Your task to perform on an android device: When is my next meeting? Image 0: 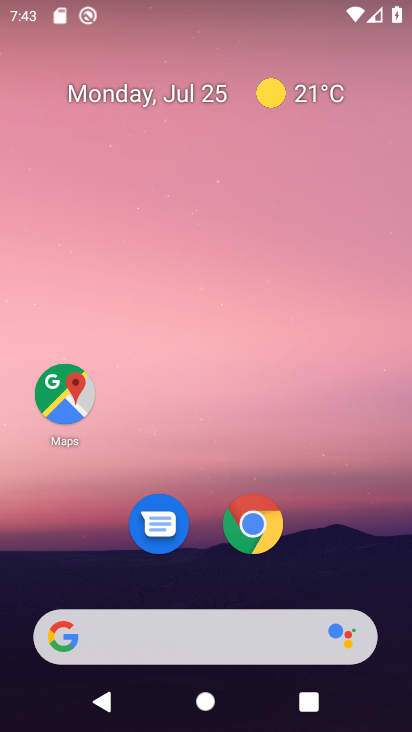
Step 0: press home button
Your task to perform on an android device: When is my next meeting? Image 1: 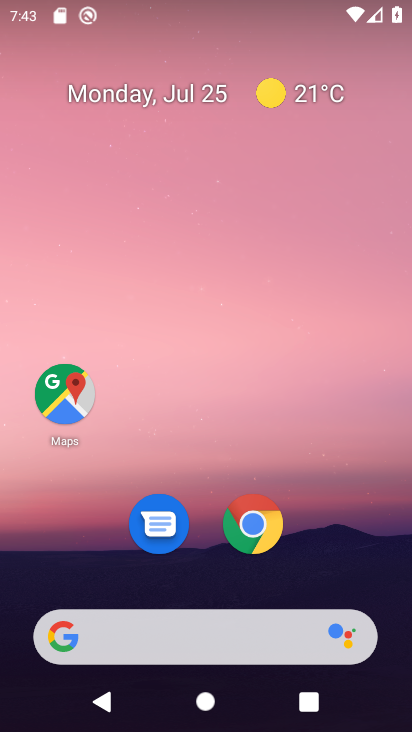
Step 1: drag from (205, 642) to (335, 185)
Your task to perform on an android device: When is my next meeting? Image 2: 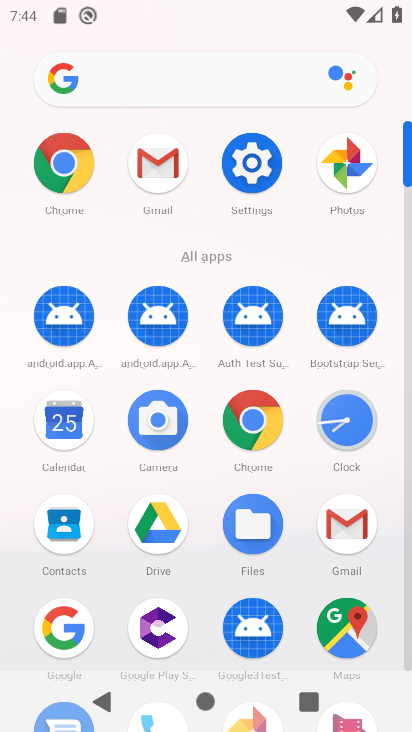
Step 2: click (56, 435)
Your task to perform on an android device: When is my next meeting? Image 3: 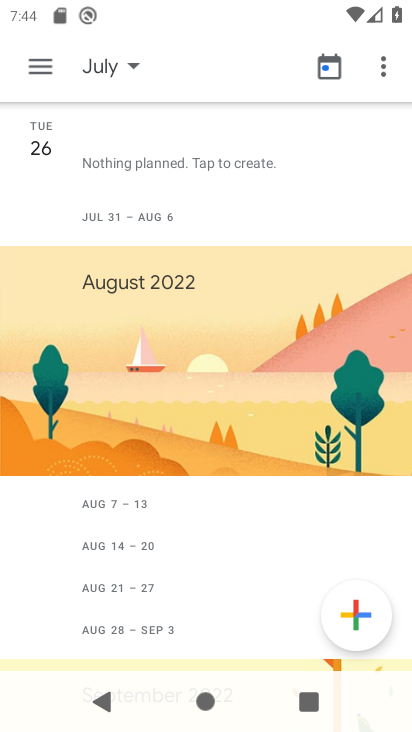
Step 3: click (98, 69)
Your task to perform on an android device: When is my next meeting? Image 4: 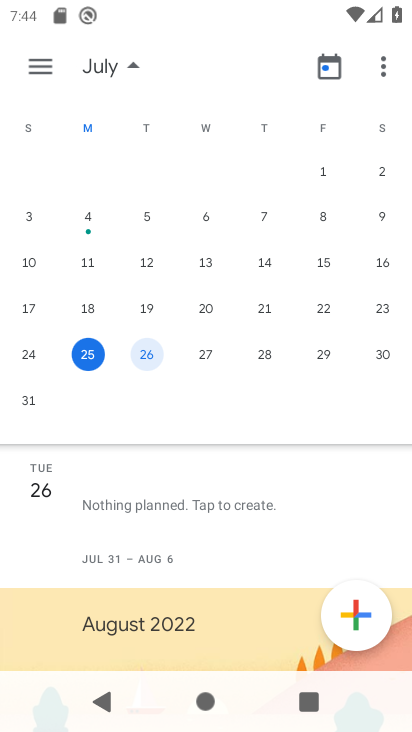
Step 4: click (82, 351)
Your task to perform on an android device: When is my next meeting? Image 5: 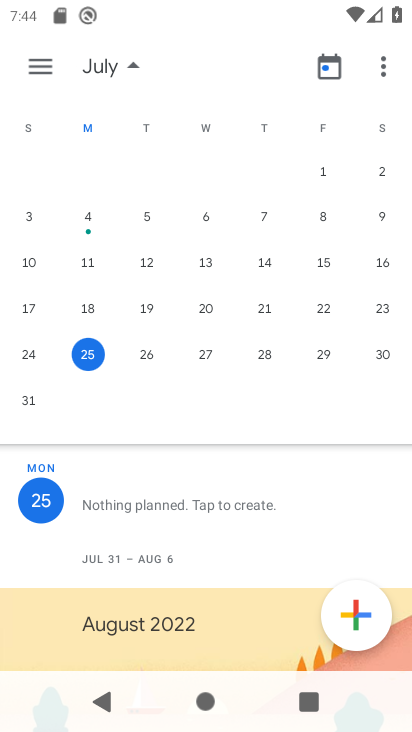
Step 5: click (44, 69)
Your task to perform on an android device: When is my next meeting? Image 6: 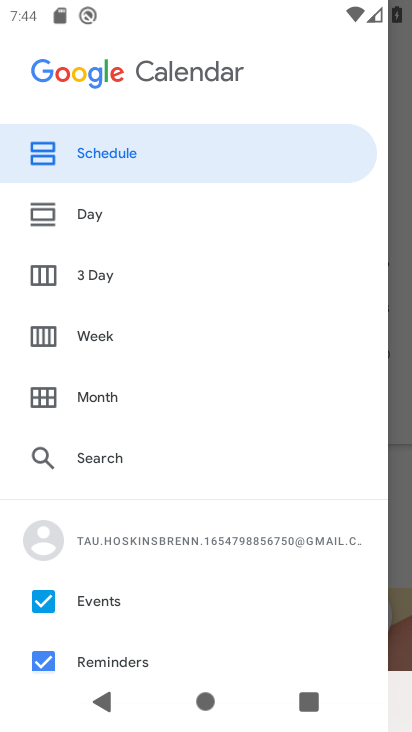
Step 6: click (98, 339)
Your task to perform on an android device: When is my next meeting? Image 7: 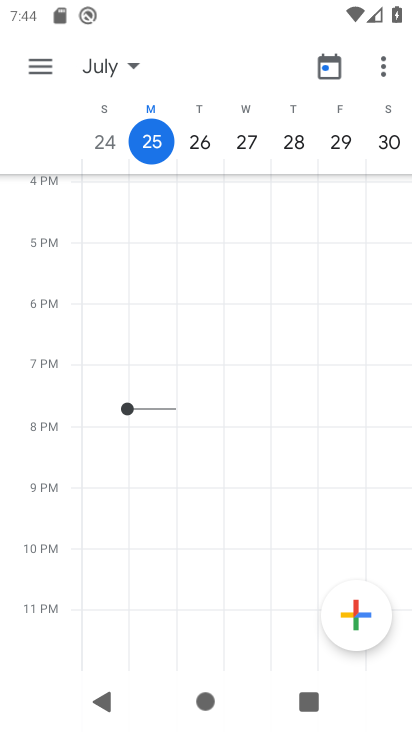
Step 7: click (52, 66)
Your task to perform on an android device: When is my next meeting? Image 8: 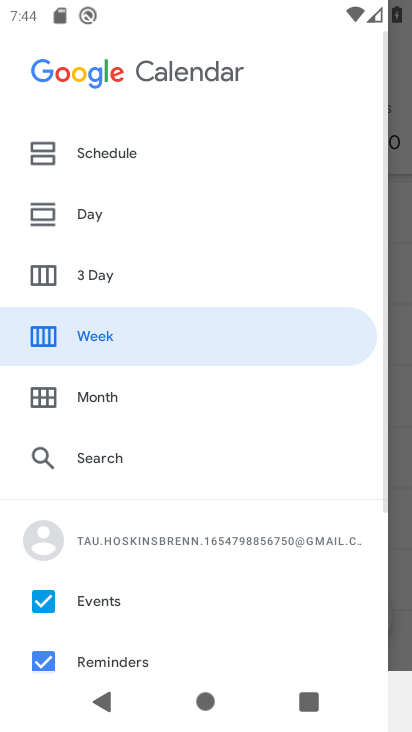
Step 8: click (135, 153)
Your task to perform on an android device: When is my next meeting? Image 9: 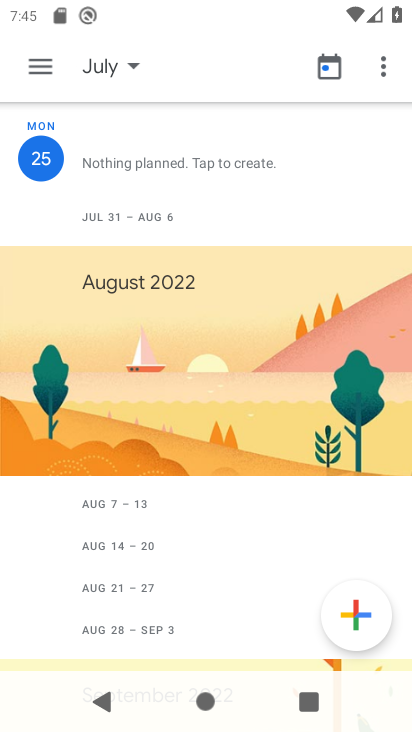
Step 9: task complete